Your task to perform on an android device: change the clock style Image 0: 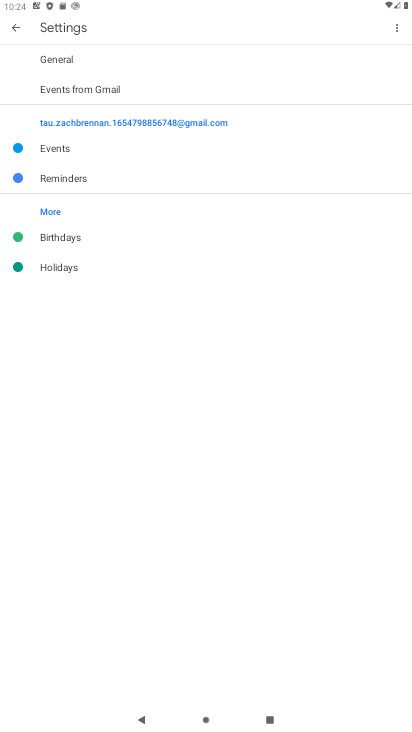
Step 0: press home button
Your task to perform on an android device: change the clock style Image 1: 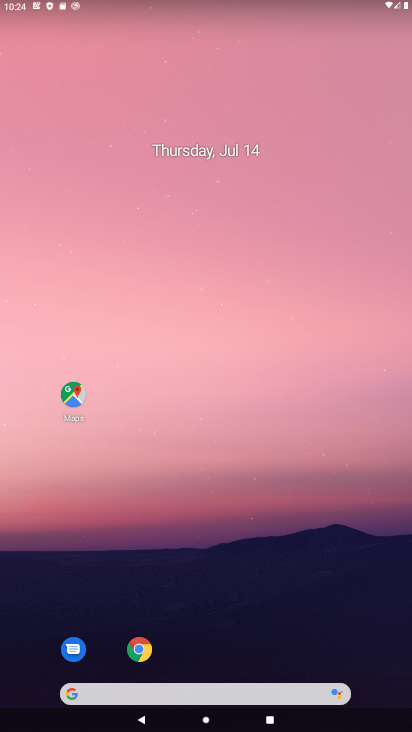
Step 1: drag from (226, 654) to (221, 31)
Your task to perform on an android device: change the clock style Image 2: 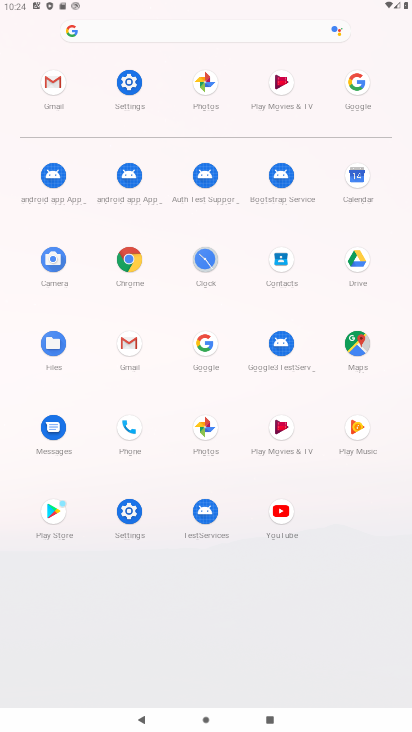
Step 2: click (198, 266)
Your task to perform on an android device: change the clock style Image 3: 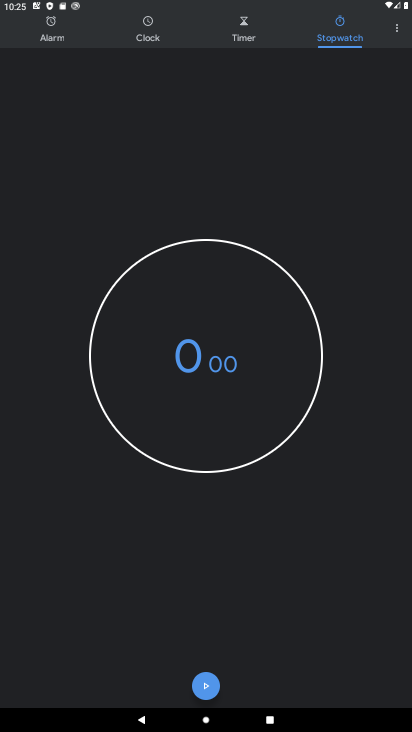
Step 3: click (396, 37)
Your task to perform on an android device: change the clock style Image 4: 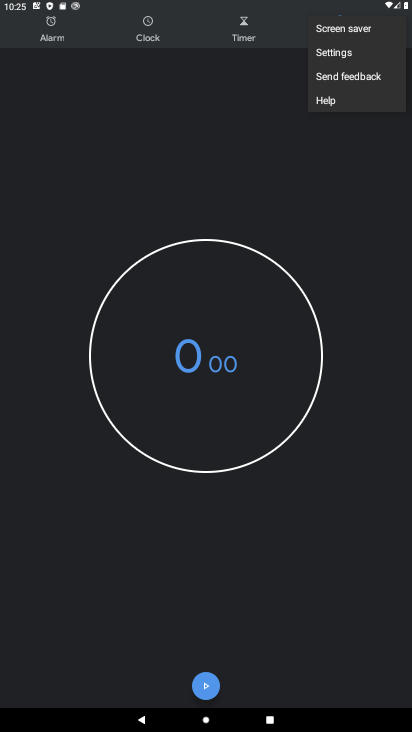
Step 4: click (364, 51)
Your task to perform on an android device: change the clock style Image 5: 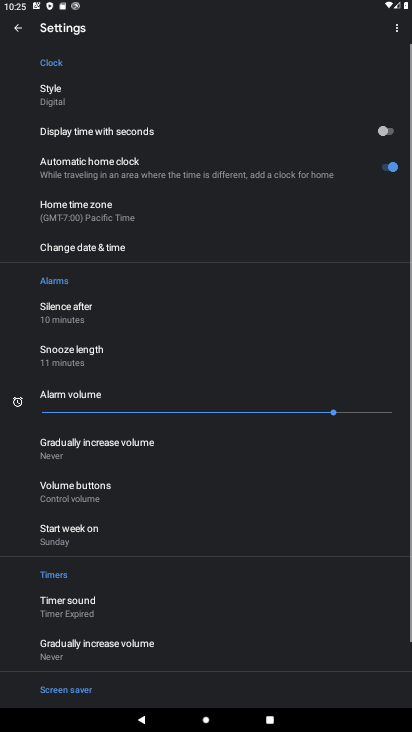
Step 5: click (93, 99)
Your task to perform on an android device: change the clock style Image 6: 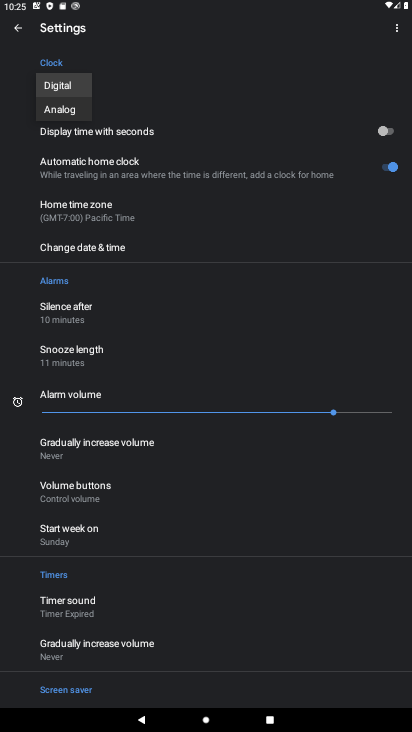
Step 6: click (68, 112)
Your task to perform on an android device: change the clock style Image 7: 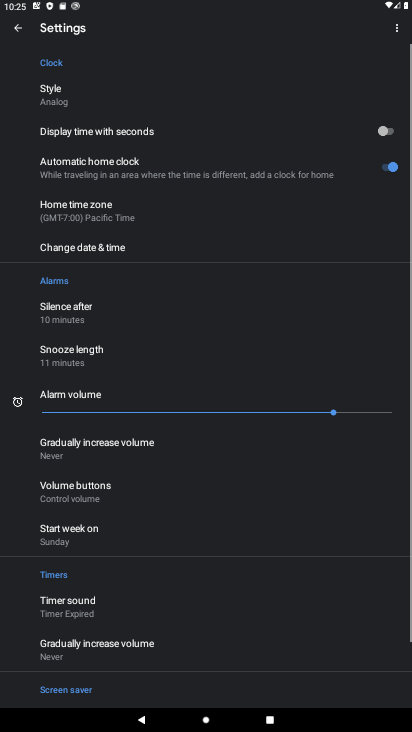
Step 7: task complete